Your task to perform on an android device: find snoozed emails in the gmail app Image 0: 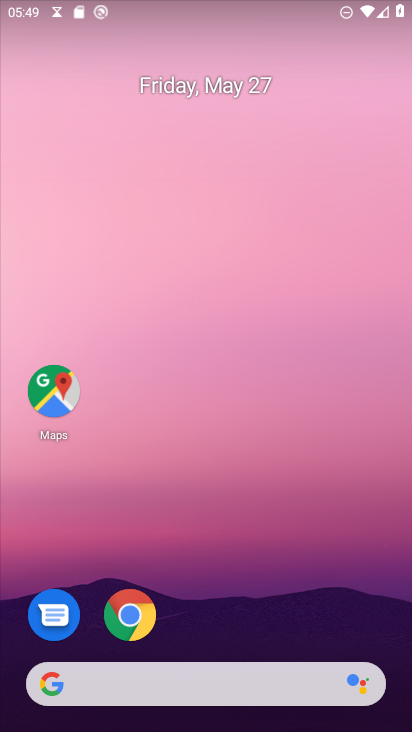
Step 0: drag from (311, 588) to (226, 21)
Your task to perform on an android device: find snoozed emails in the gmail app Image 1: 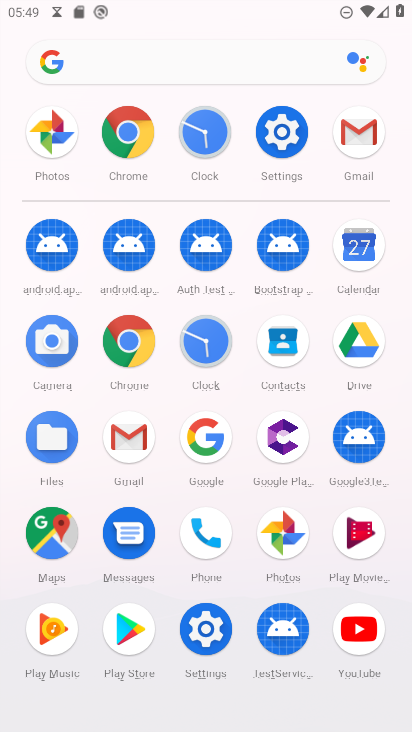
Step 1: click (127, 439)
Your task to perform on an android device: find snoozed emails in the gmail app Image 2: 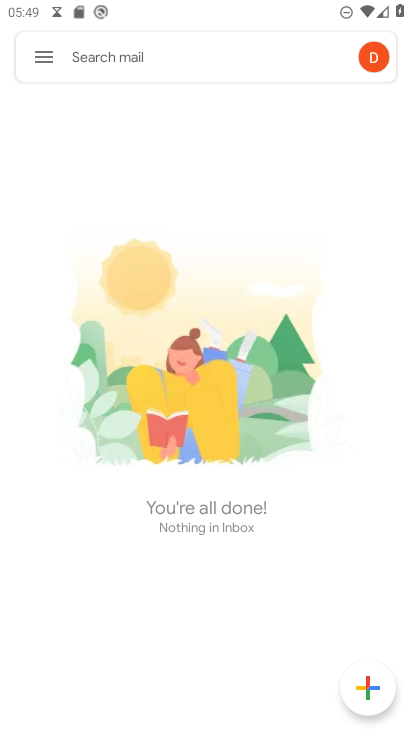
Step 2: click (53, 61)
Your task to perform on an android device: find snoozed emails in the gmail app Image 3: 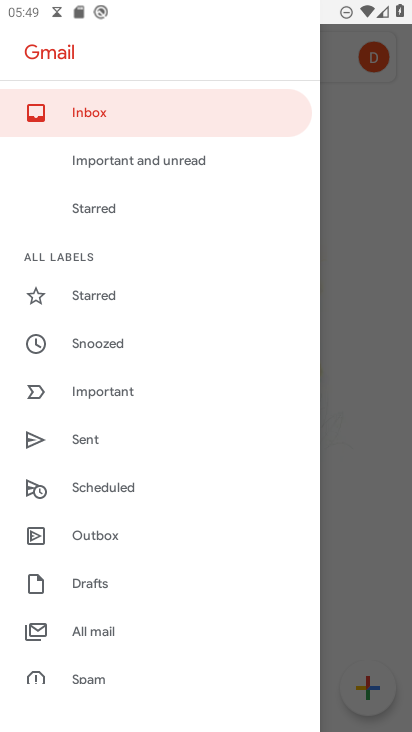
Step 3: click (145, 347)
Your task to perform on an android device: find snoozed emails in the gmail app Image 4: 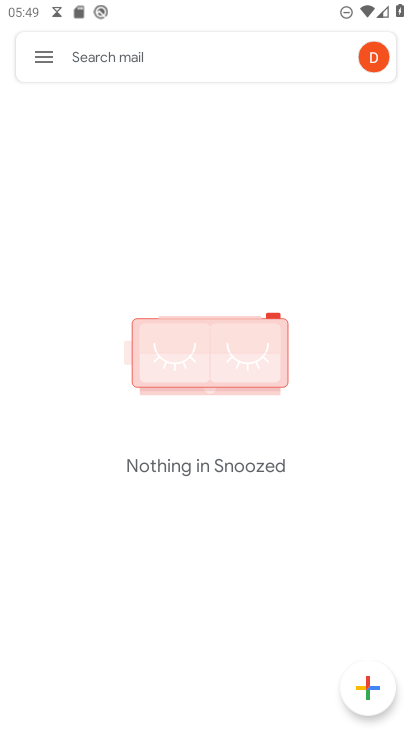
Step 4: task complete